Your task to perform on an android device: turn on the 24-hour format for clock Image 0: 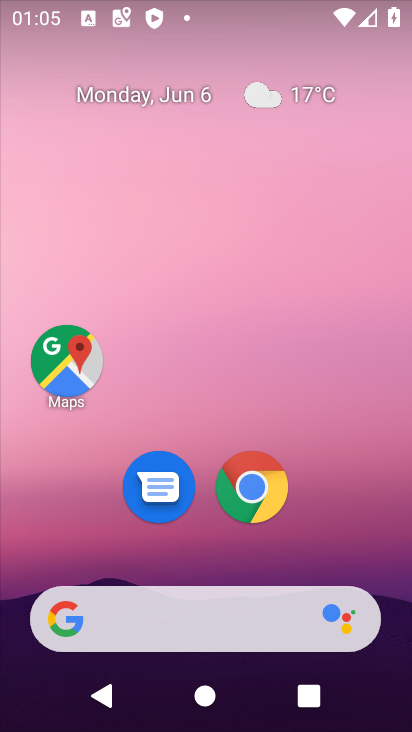
Step 0: drag from (397, 606) to (359, 128)
Your task to perform on an android device: turn on the 24-hour format for clock Image 1: 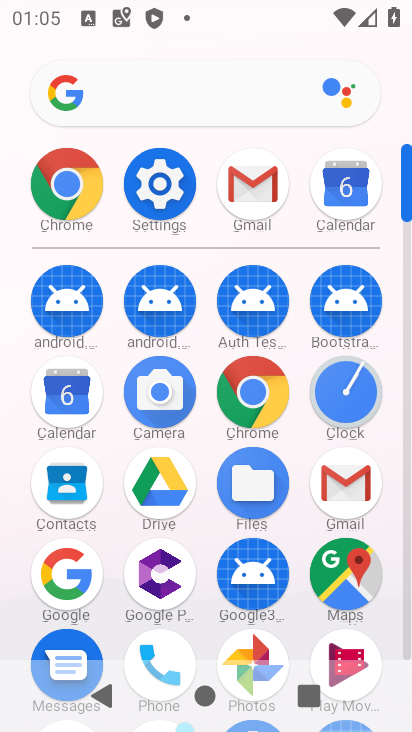
Step 1: click (343, 386)
Your task to perform on an android device: turn on the 24-hour format for clock Image 2: 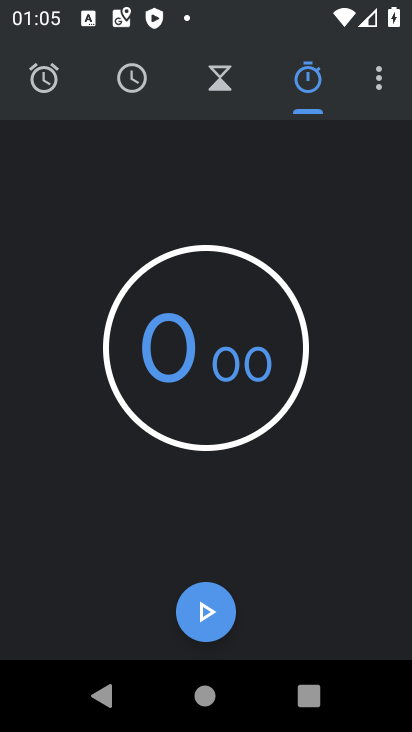
Step 2: click (375, 87)
Your task to perform on an android device: turn on the 24-hour format for clock Image 3: 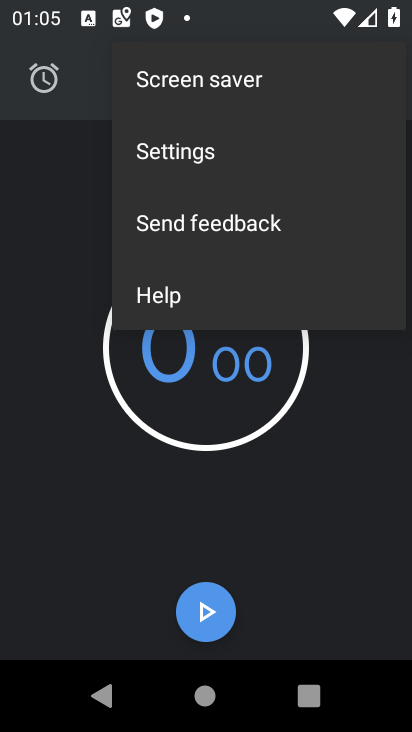
Step 3: click (171, 149)
Your task to perform on an android device: turn on the 24-hour format for clock Image 4: 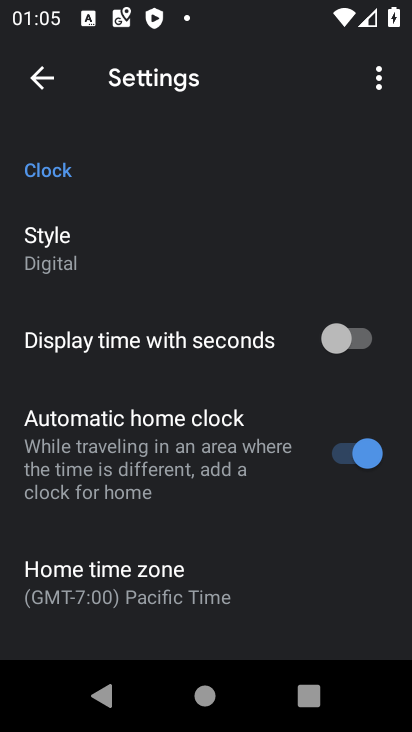
Step 4: drag from (304, 575) to (247, 98)
Your task to perform on an android device: turn on the 24-hour format for clock Image 5: 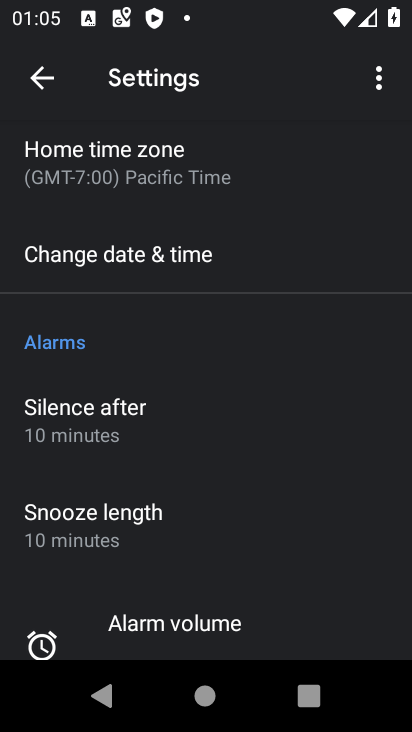
Step 5: click (153, 245)
Your task to perform on an android device: turn on the 24-hour format for clock Image 6: 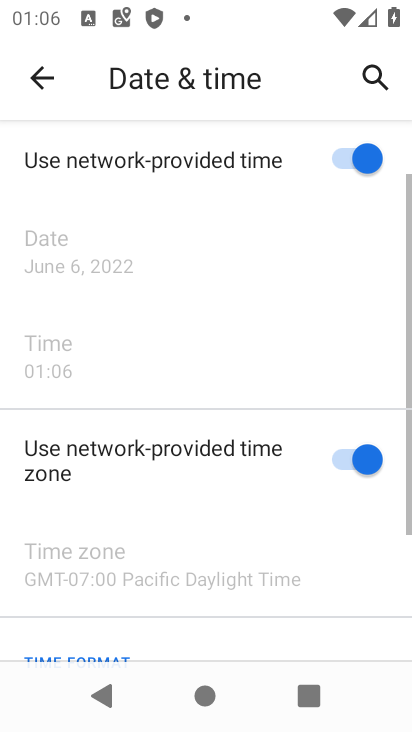
Step 6: task complete